Your task to perform on an android device: set an alarm Image 0: 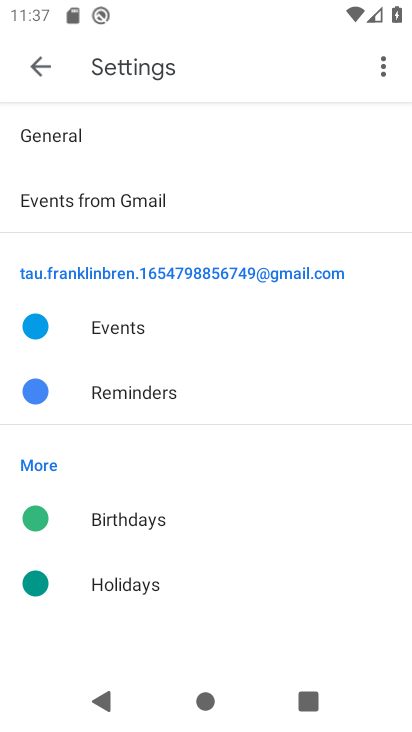
Step 0: press home button
Your task to perform on an android device: set an alarm Image 1: 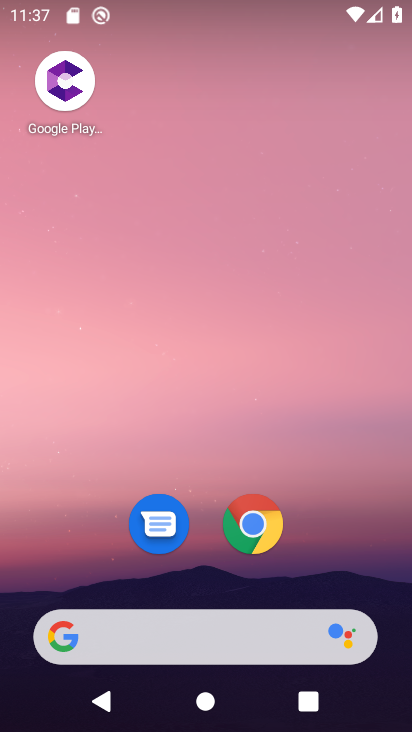
Step 1: drag from (208, 462) to (243, 27)
Your task to perform on an android device: set an alarm Image 2: 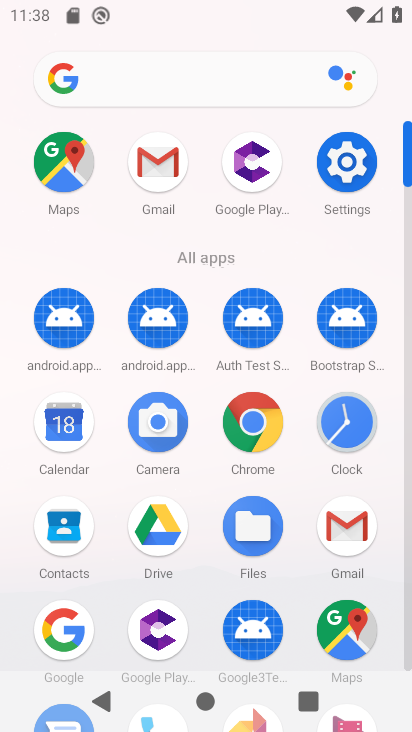
Step 2: click (352, 431)
Your task to perform on an android device: set an alarm Image 3: 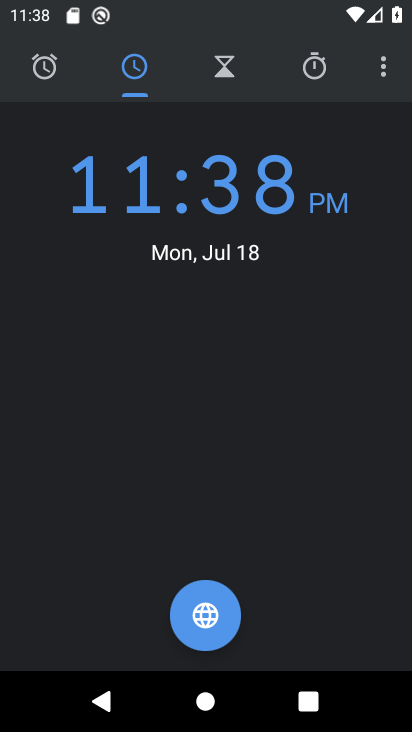
Step 3: click (55, 71)
Your task to perform on an android device: set an alarm Image 4: 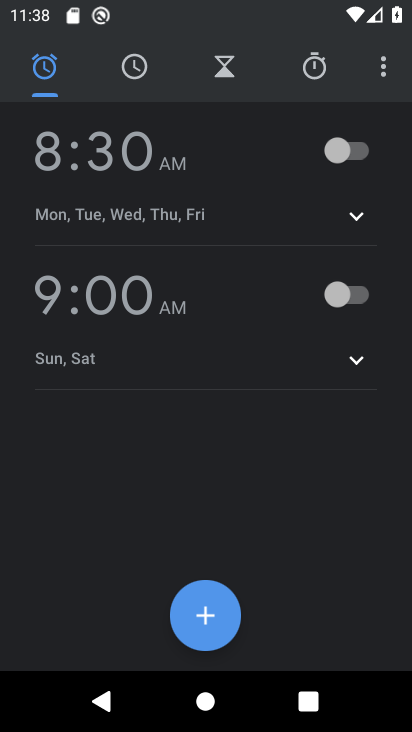
Step 4: task complete